Your task to perform on an android device: turn on wifi Image 0: 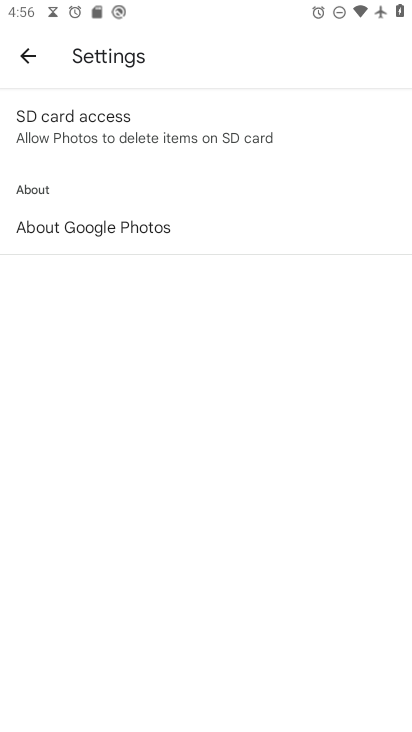
Step 0: press back button
Your task to perform on an android device: turn on wifi Image 1: 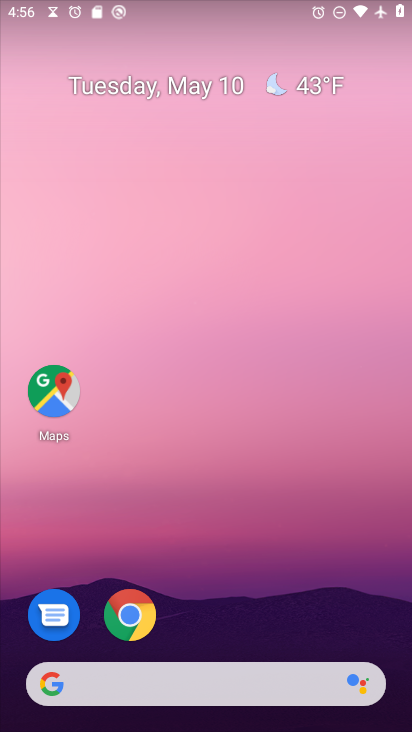
Step 1: drag from (222, 564) to (182, 4)
Your task to perform on an android device: turn on wifi Image 2: 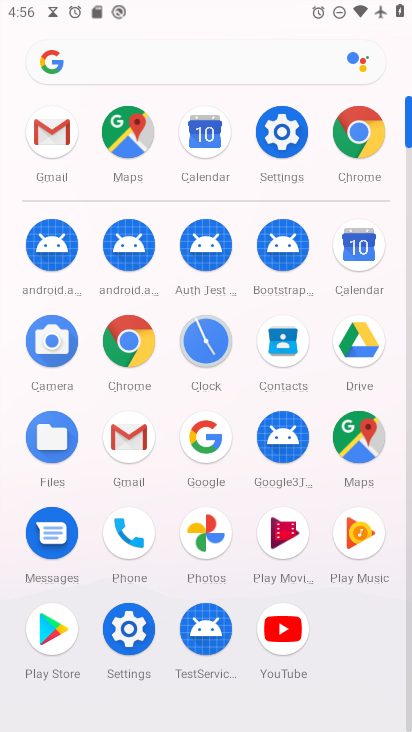
Step 2: click (286, 134)
Your task to perform on an android device: turn on wifi Image 3: 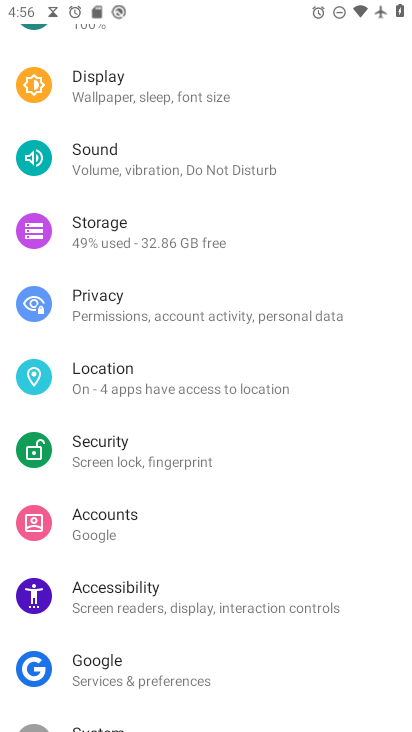
Step 3: drag from (189, 93) to (192, 430)
Your task to perform on an android device: turn on wifi Image 4: 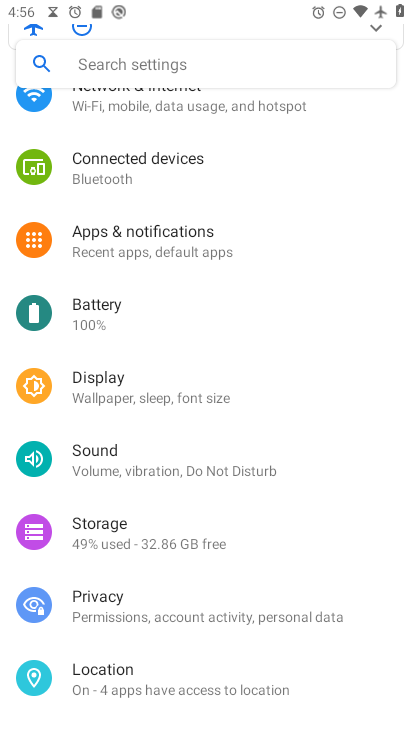
Step 4: drag from (184, 134) to (204, 520)
Your task to perform on an android device: turn on wifi Image 5: 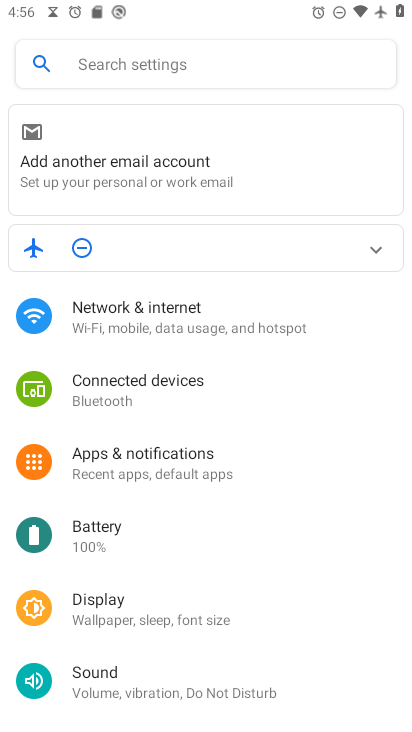
Step 5: click (143, 322)
Your task to perform on an android device: turn on wifi Image 6: 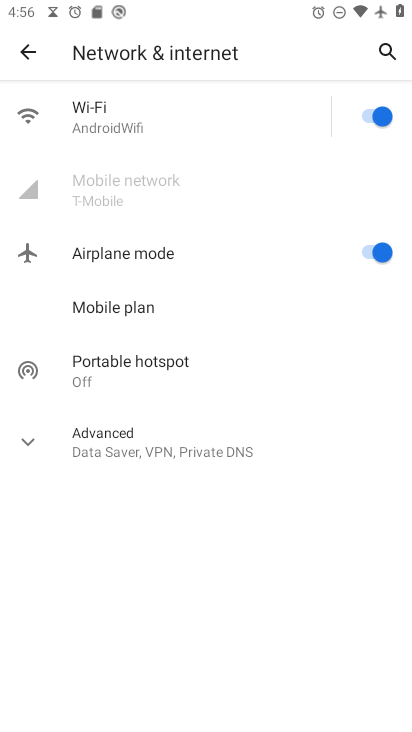
Step 6: task complete